Your task to perform on an android device: check battery use Image 0: 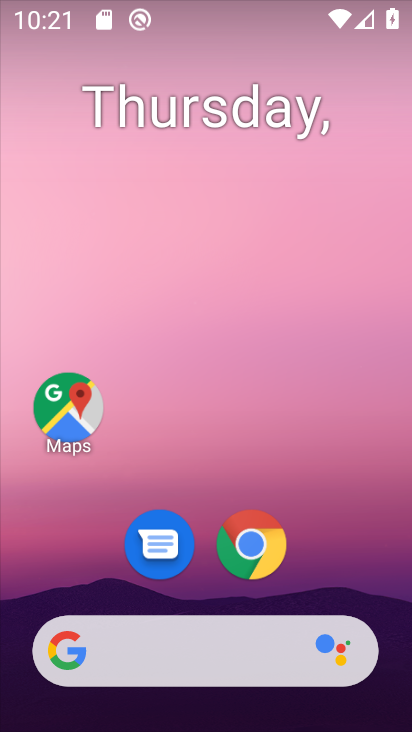
Step 0: click (249, 246)
Your task to perform on an android device: check battery use Image 1: 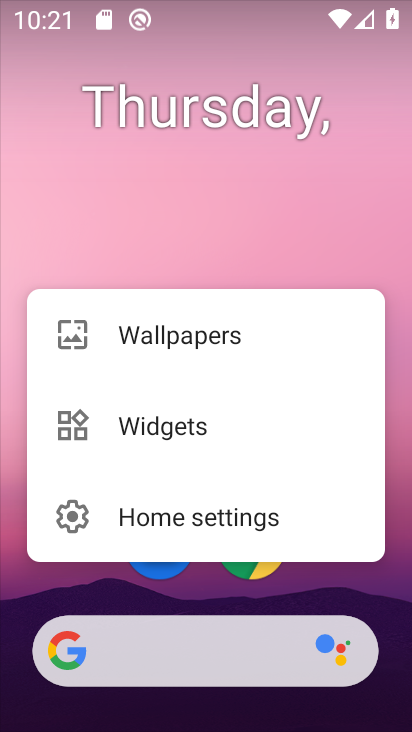
Step 1: click (374, 594)
Your task to perform on an android device: check battery use Image 2: 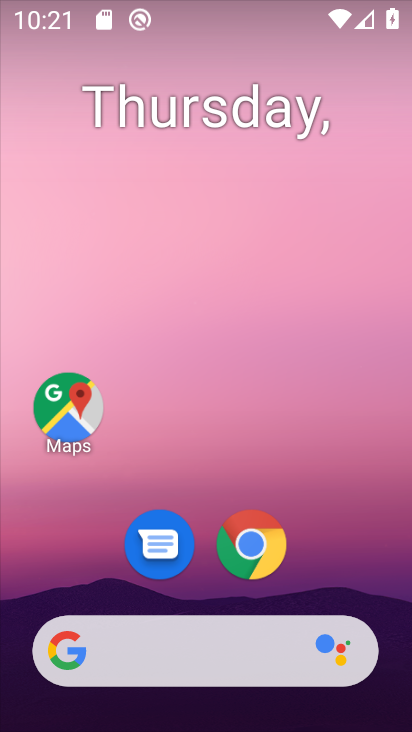
Step 2: drag from (232, 582) to (219, 95)
Your task to perform on an android device: check battery use Image 3: 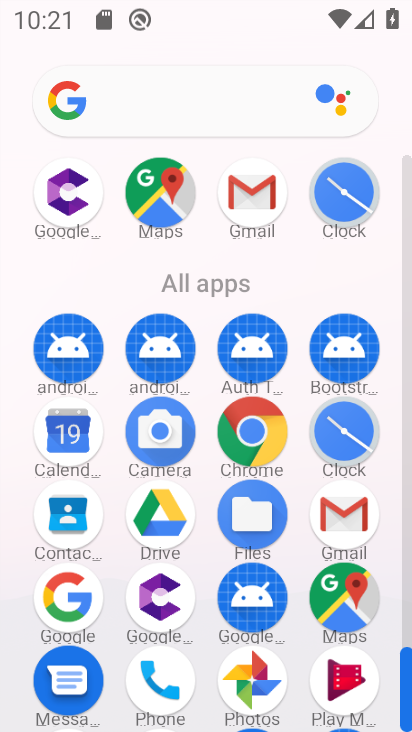
Step 3: drag from (216, 562) to (256, 197)
Your task to perform on an android device: check battery use Image 4: 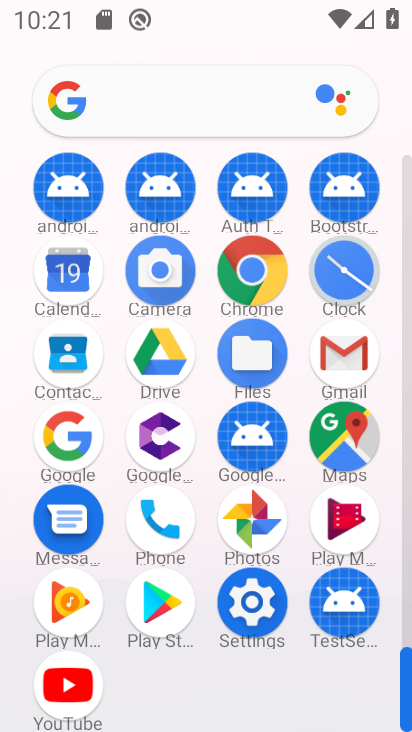
Step 4: click (249, 626)
Your task to perform on an android device: check battery use Image 5: 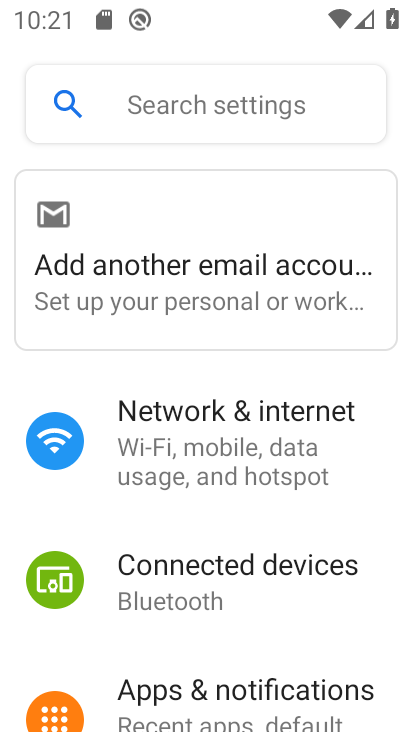
Step 5: click (278, 465)
Your task to perform on an android device: check battery use Image 6: 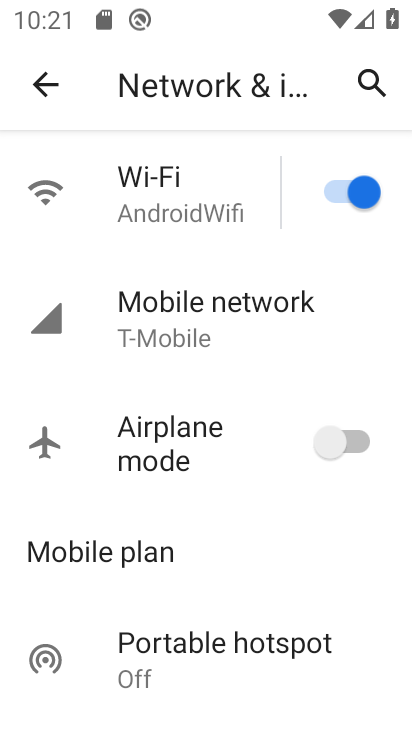
Step 6: drag from (214, 563) to (202, 467)
Your task to perform on an android device: check battery use Image 7: 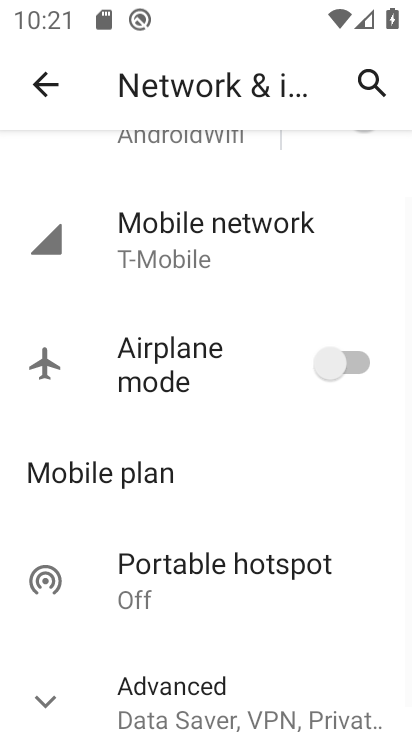
Step 7: click (41, 88)
Your task to perform on an android device: check battery use Image 8: 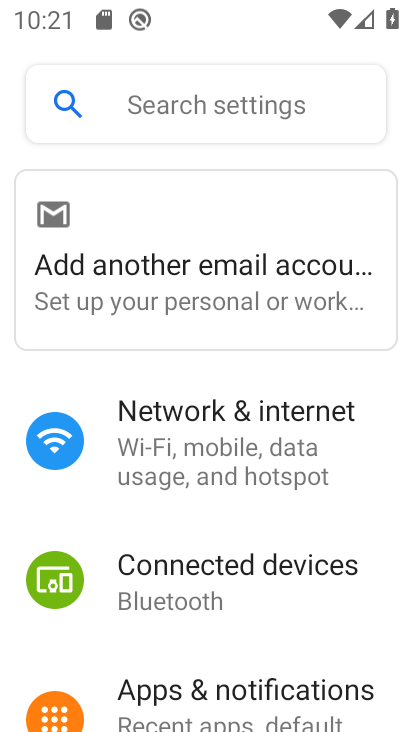
Step 8: drag from (235, 580) to (244, 409)
Your task to perform on an android device: check battery use Image 9: 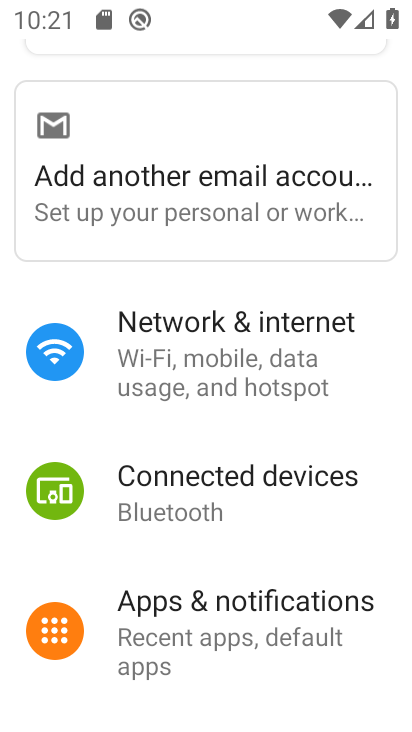
Step 9: drag from (259, 662) to (282, 415)
Your task to perform on an android device: check battery use Image 10: 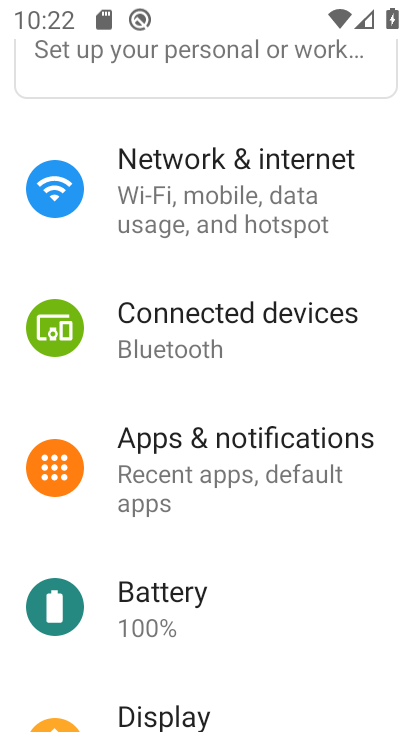
Step 10: click (207, 608)
Your task to perform on an android device: check battery use Image 11: 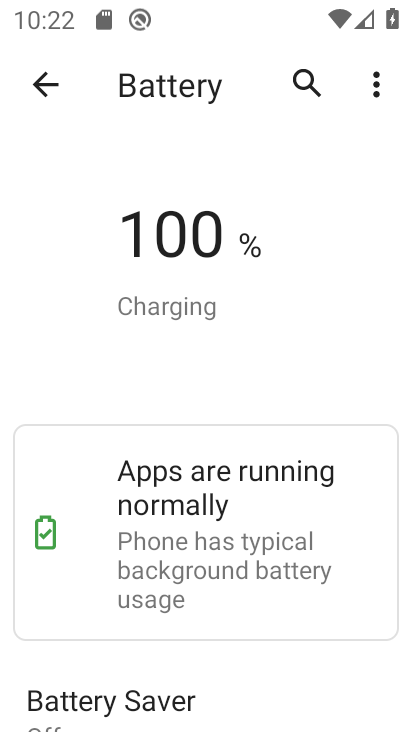
Step 11: task complete